Your task to perform on an android device: Open the map Image 0: 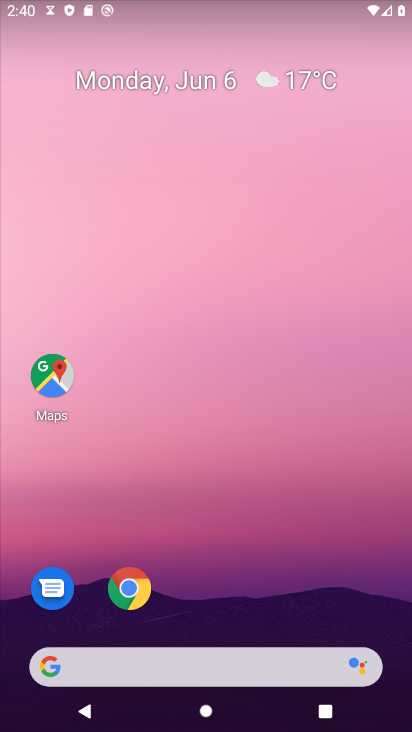
Step 0: drag from (12, 273) to (391, 198)
Your task to perform on an android device: Open the map Image 1: 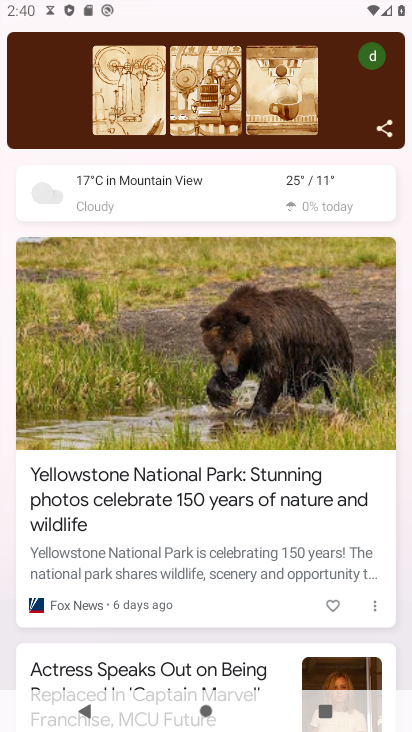
Step 1: press home button
Your task to perform on an android device: Open the map Image 2: 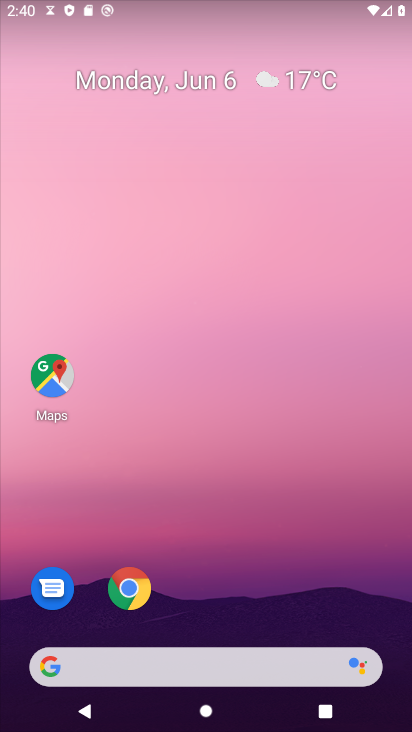
Step 2: click (59, 370)
Your task to perform on an android device: Open the map Image 3: 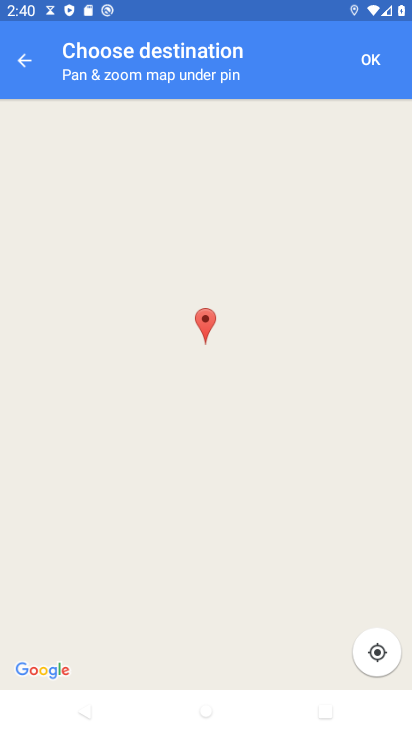
Step 3: click (21, 60)
Your task to perform on an android device: Open the map Image 4: 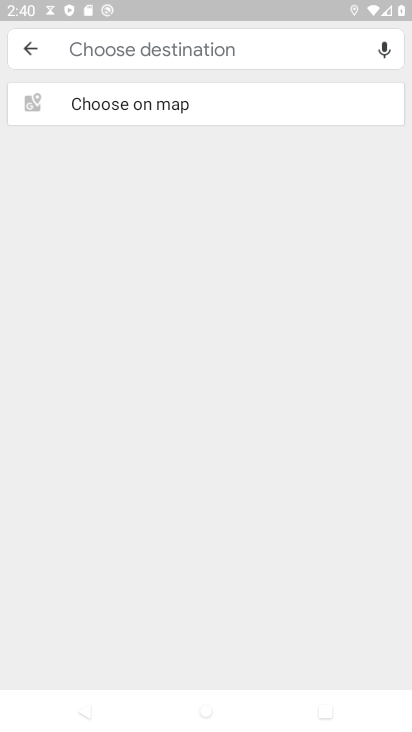
Step 4: click (32, 51)
Your task to perform on an android device: Open the map Image 5: 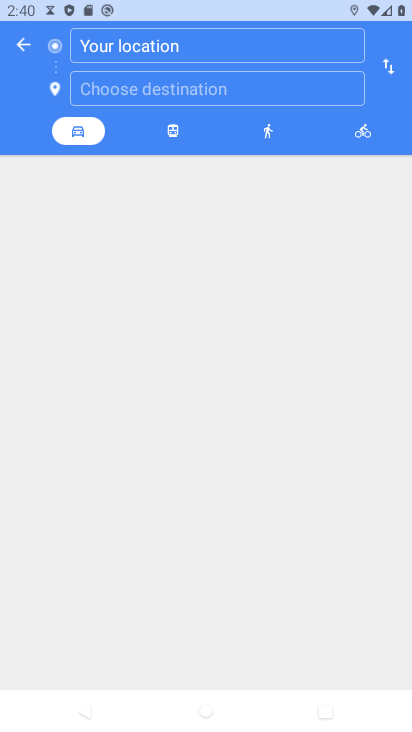
Step 5: click (17, 43)
Your task to perform on an android device: Open the map Image 6: 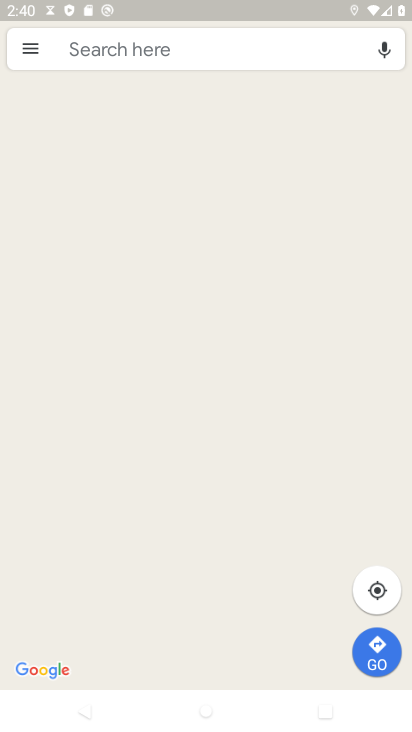
Step 6: click (385, 580)
Your task to perform on an android device: Open the map Image 7: 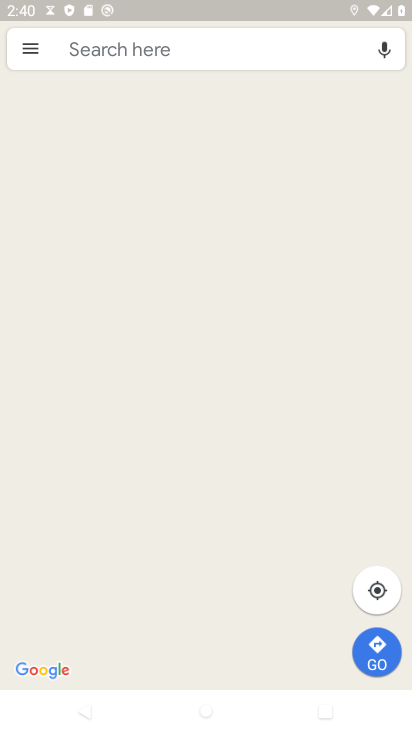
Step 7: click (385, 580)
Your task to perform on an android device: Open the map Image 8: 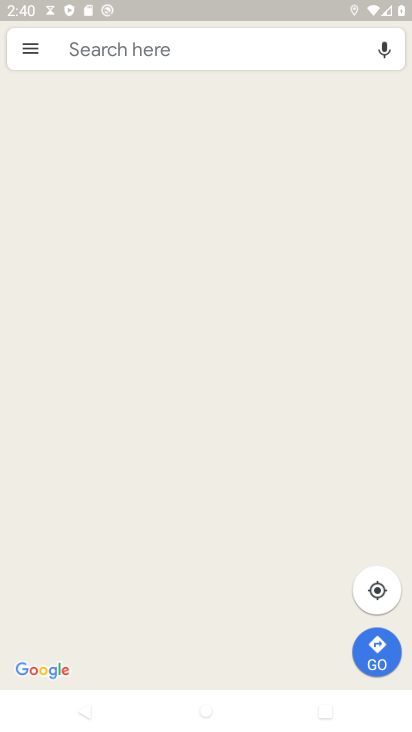
Step 8: task complete